Your task to perform on an android device: Open Google Chrome and open the bookmarks view Image 0: 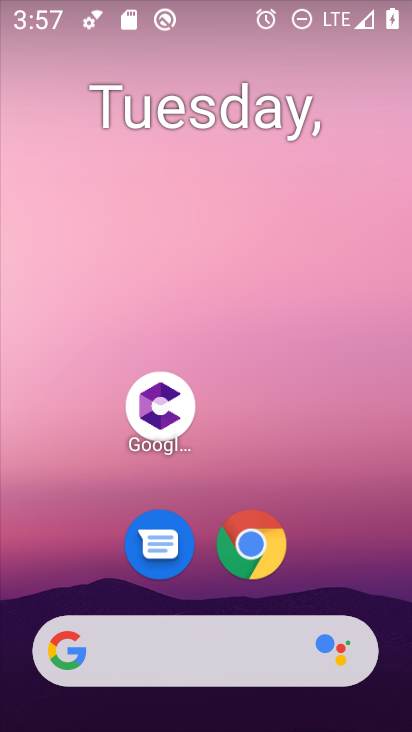
Step 0: drag from (349, 559) to (364, 164)
Your task to perform on an android device: Open Google Chrome and open the bookmarks view Image 1: 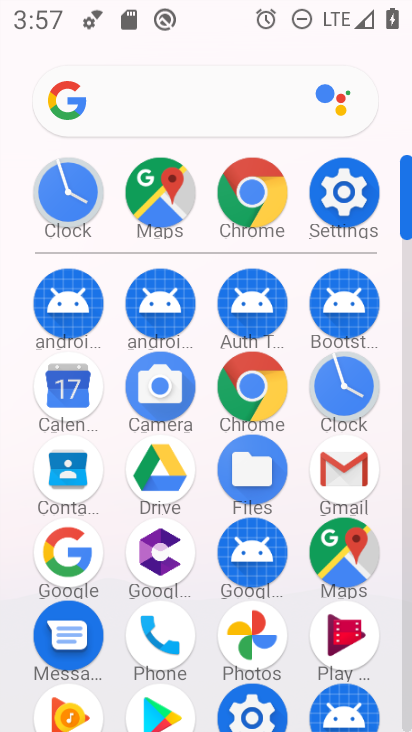
Step 1: click (253, 381)
Your task to perform on an android device: Open Google Chrome and open the bookmarks view Image 2: 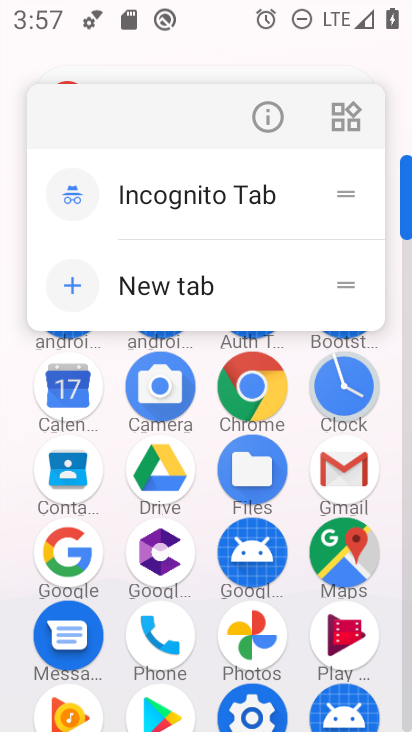
Step 2: click (253, 381)
Your task to perform on an android device: Open Google Chrome and open the bookmarks view Image 3: 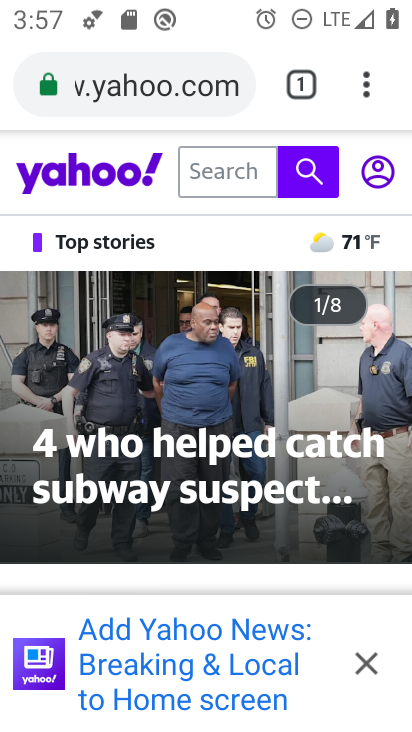
Step 3: click (365, 85)
Your task to perform on an android device: Open Google Chrome and open the bookmarks view Image 4: 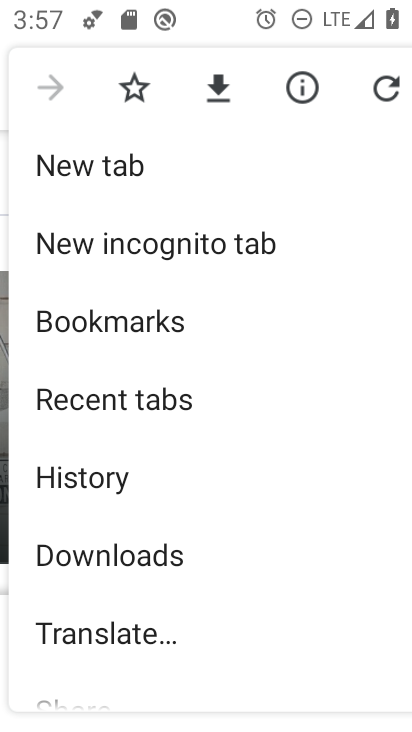
Step 4: drag from (289, 554) to (312, 381)
Your task to perform on an android device: Open Google Chrome and open the bookmarks view Image 5: 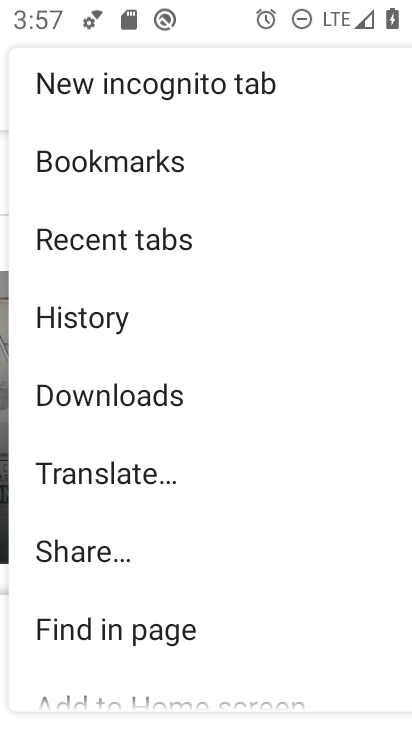
Step 5: drag from (274, 582) to (292, 437)
Your task to perform on an android device: Open Google Chrome and open the bookmarks view Image 6: 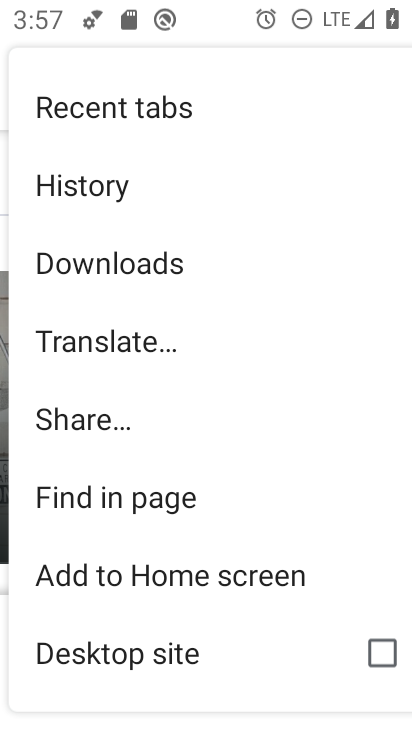
Step 6: drag from (277, 592) to (293, 429)
Your task to perform on an android device: Open Google Chrome and open the bookmarks view Image 7: 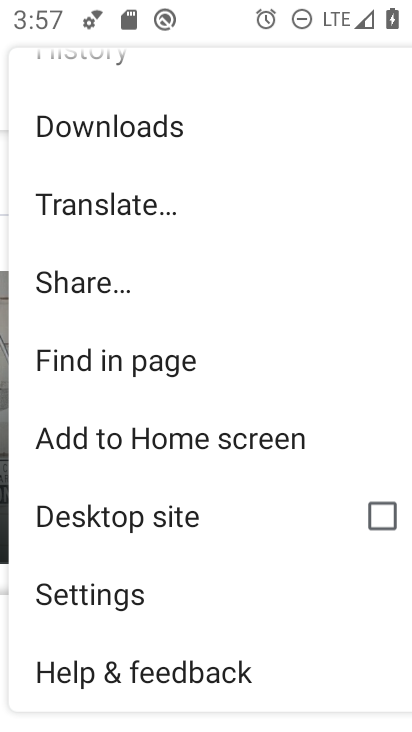
Step 7: drag from (272, 607) to (265, 394)
Your task to perform on an android device: Open Google Chrome and open the bookmarks view Image 8: 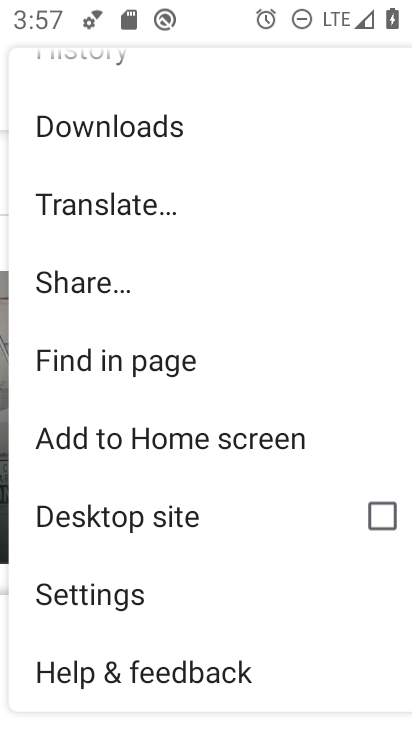
Step 8: drag from (285, 281) to (255, 458)
Your task to perform on an android device: Open Google Chrome and open the bookmarks view Image 9: 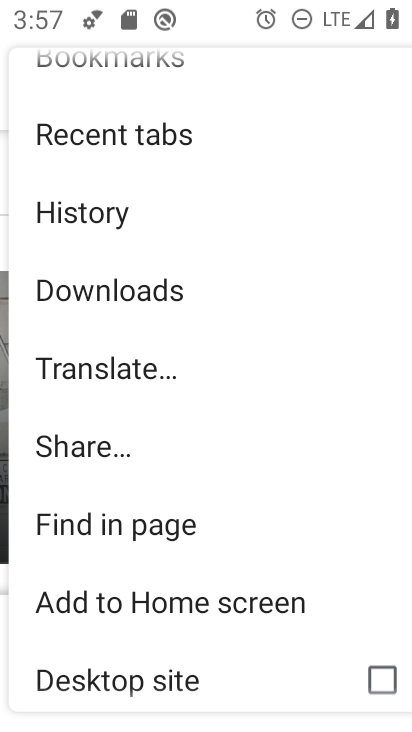
Step 9: drag from (266, 277) to (249, 453)
Your task to perform on an android device: Open Google Chrome and open the bookmarks view Image 10: 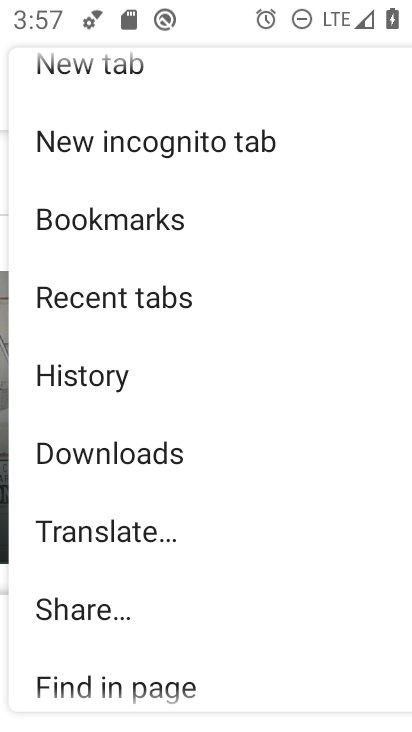
Step 10: drag from (267, 264) to (253, 422)
Your task to perform on an android device: Open Google Chrome and open the bookmarks view Image 11: 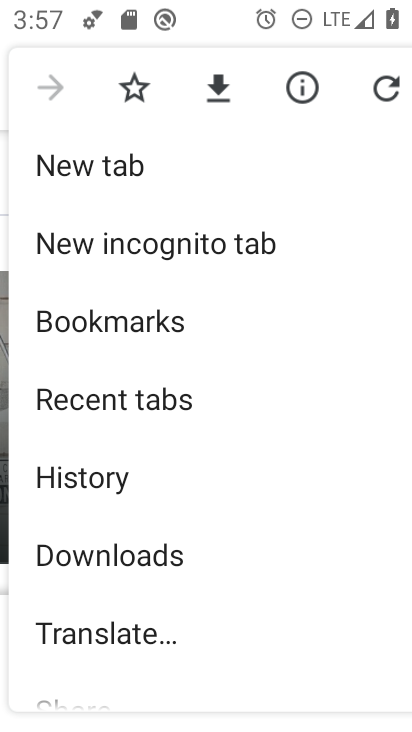
Step 11: click (180, 327)
Your task to perform on an android device: Open Google Chrome and open the bookmarks view Image 12: 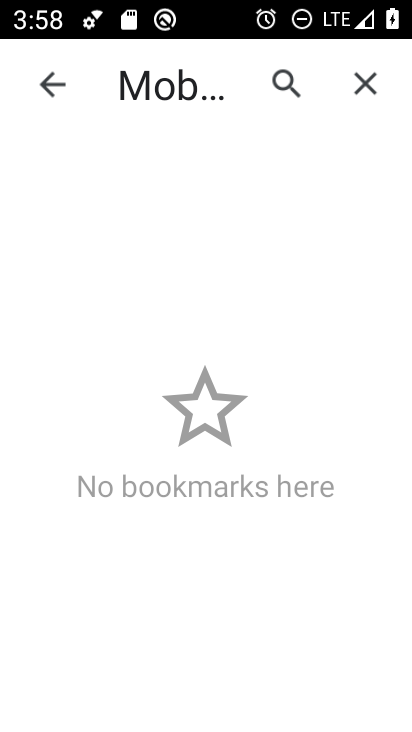
Step 12: task complete